Your task to perform on an android device: find photos in the google photos app Image 0: 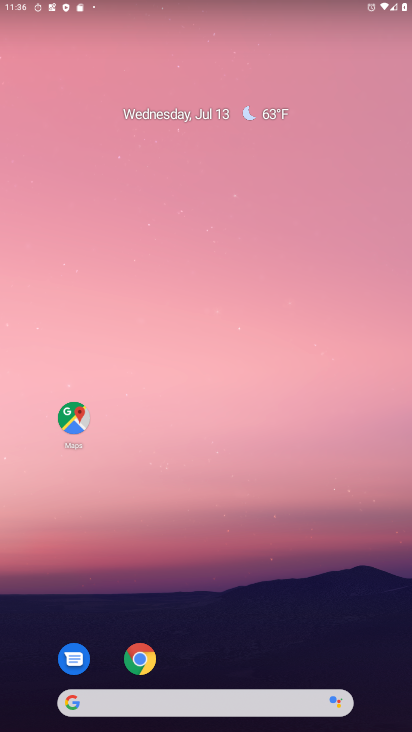
Step 0: drag from (325, 668) to (278, 204)
Your task to perform on an android device: find photos in the google photos app Image 1: 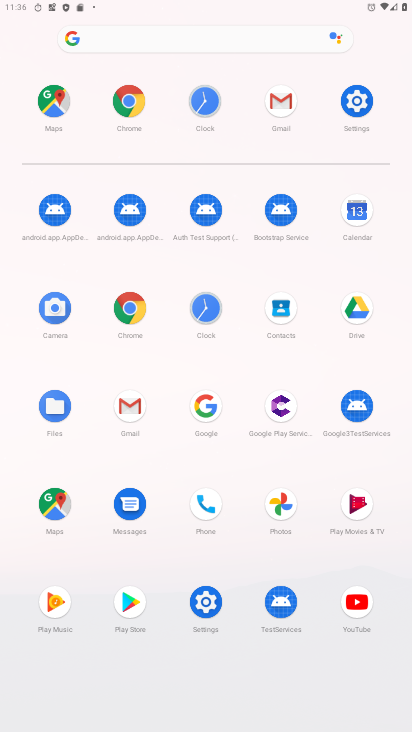
Step 1: click (281, 494)
Your task to perform on an android device: find photos in the google photos app Image 2: 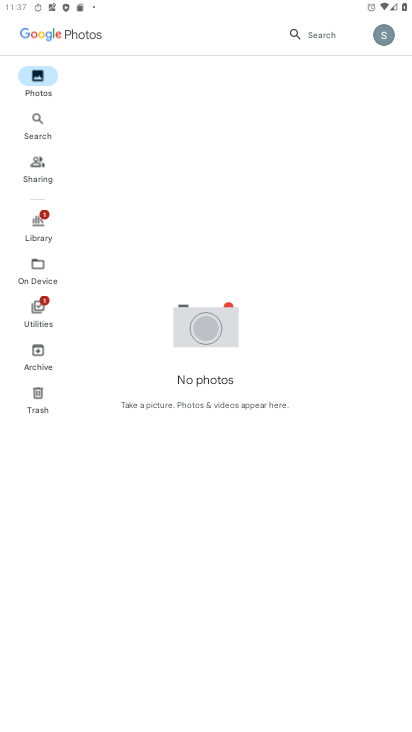
Step 2: task complete